Your task to perform on an android device: Find coffee shops on Maps Image 0: 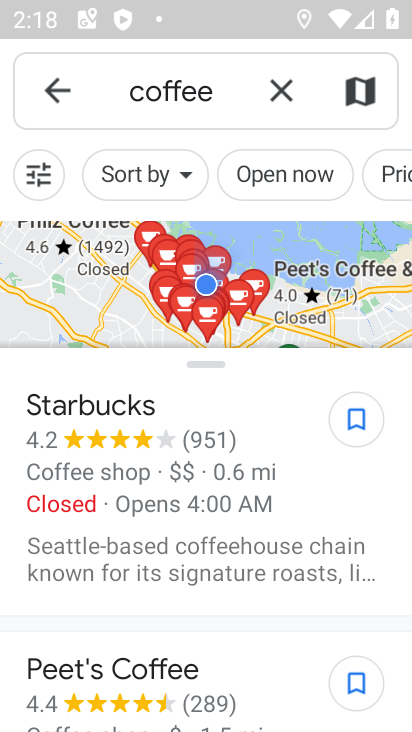
Step 0: task complete